Your task to perform on an android device: toggle sleep mode Image 0: 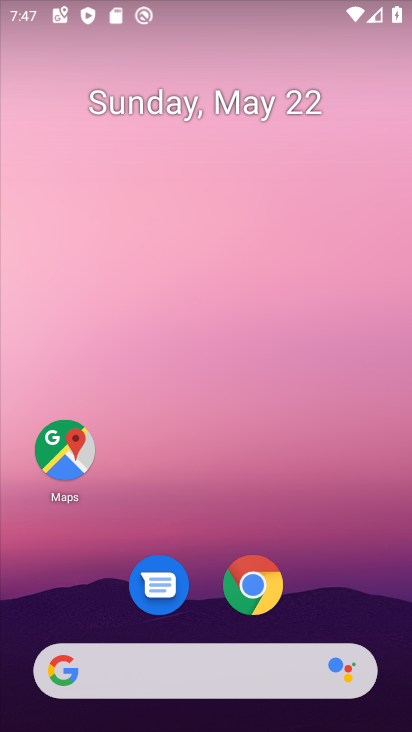
Step 0: click (214, 24)
Your task to perform on an android device: toggle sleep mode Image 1: 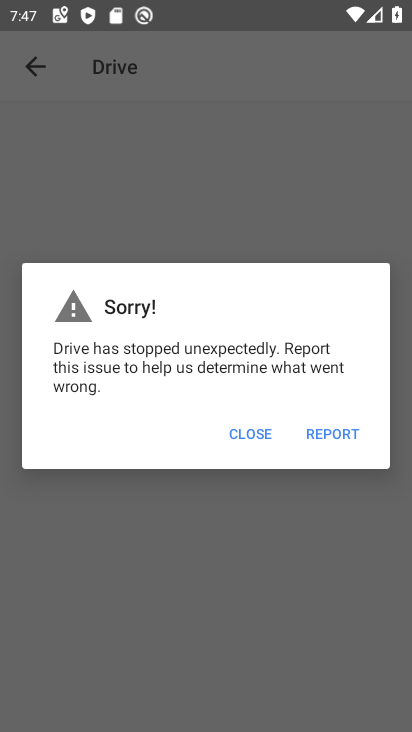
Step 1: press home button
Your task to perform on an android device: toggle sleep mode Image 2: 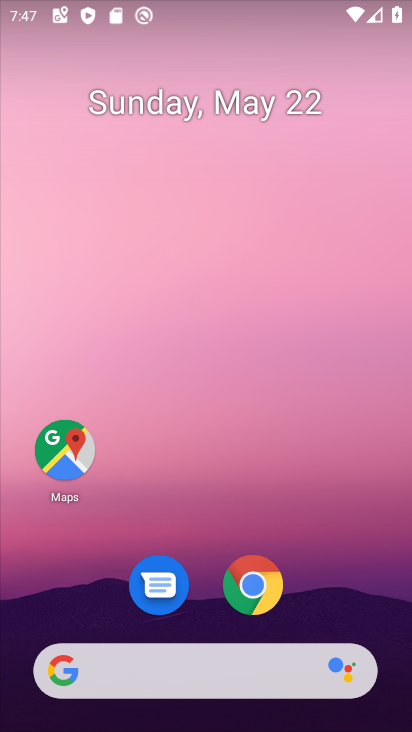
Step 2: drag from (199, 432) to (217, 41)
Your task to perform on an android device: toggle sleep mode Image 3: 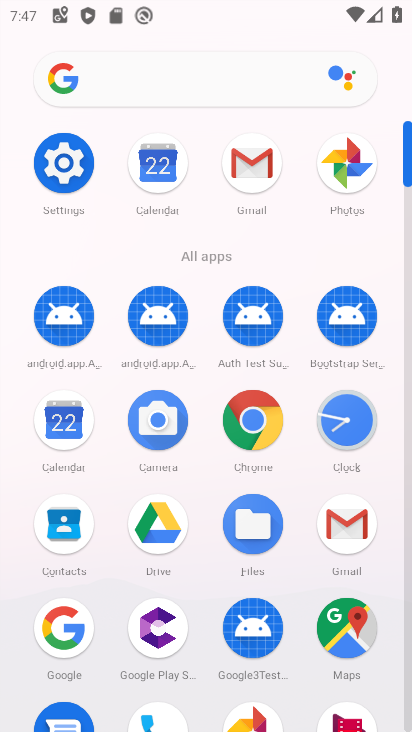
Step 3: click (71, 154)
Your task to perform on an android device: toggle sleep mode Image 4: 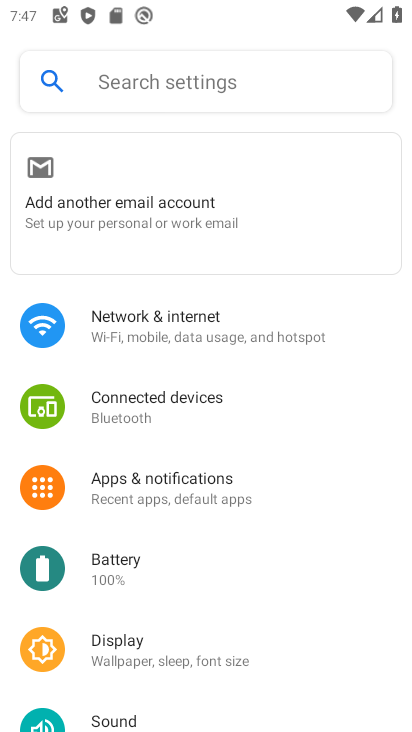
Step 4: click (158, 652)
Your task to perform on an android device: toggle sleep mode Image 5: 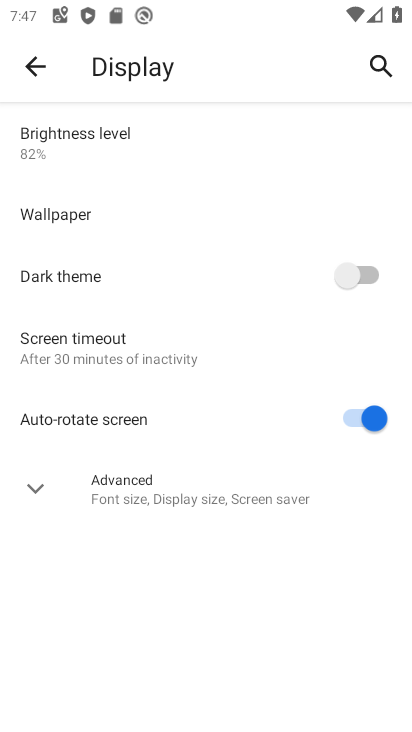
Step 5: click (25, 483)
Your task to perform on an android device: toggle sleep mode Image 6: 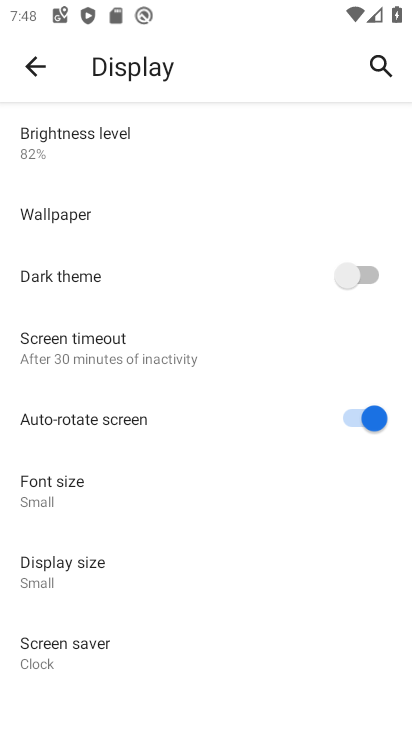
Step 6: task complete